Your task to perform on an android device: change keyboard looks Image 0: 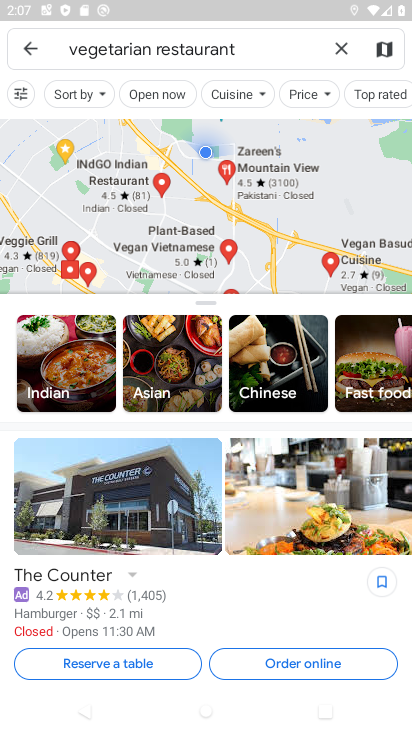
Step 0: press home button
Your task to perform on an android device: change keyboard looks Image 1: 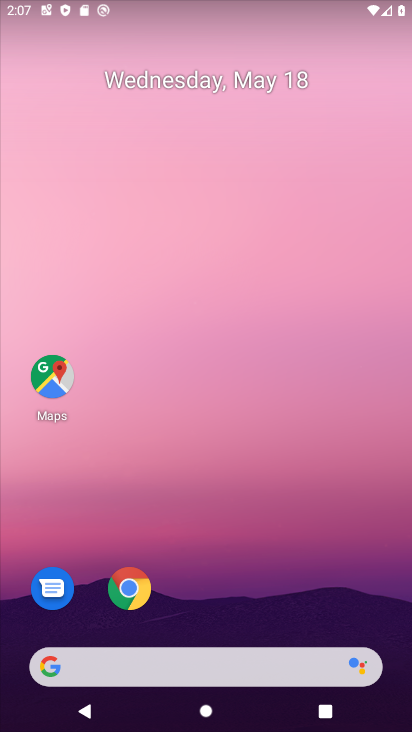
Step 1: drag from (368, 609) to (349, 166)
Your task to perform on an android device: change keyboard looks Image 2: 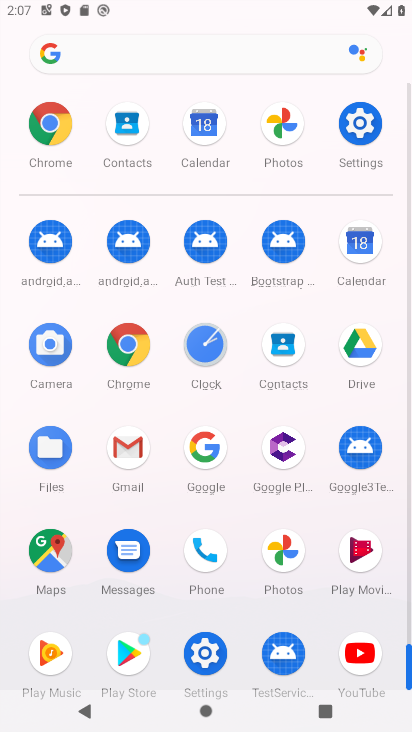
Step 2: click (352, 137)
Your task to perform on an android device: change keyboard looks Image 3: 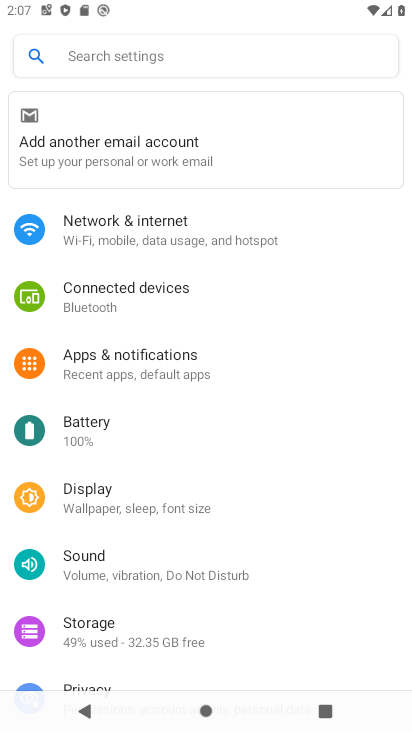
Step 3: drag from (319, 545) to (319, 357)
Your task to perform on an android device: change keyboard looks Image 4: 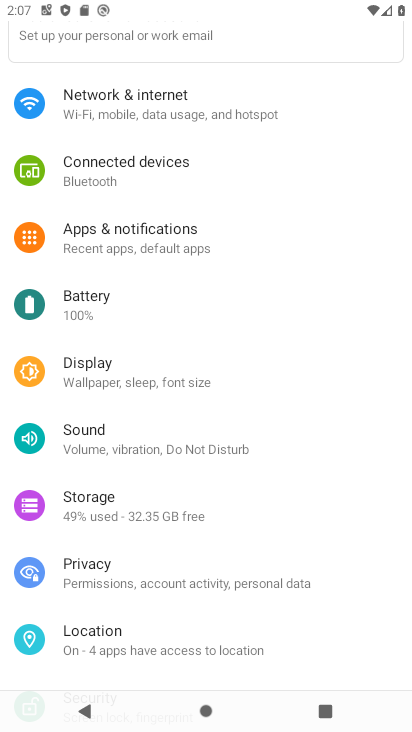
Step 4: drag from (324, 549) to (312, 387)
Your task to perform on an android device: change keyboard looks Image 5: 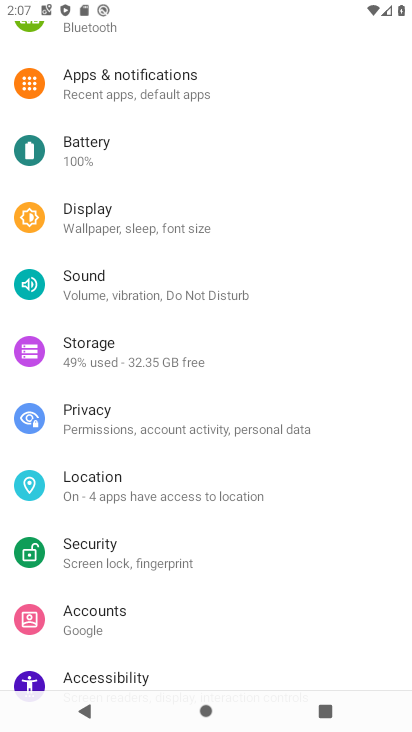
Step 5: drag from (327, 550) to (342, 473)
Your task to perform on an android device: change keyboard looks Image 6: 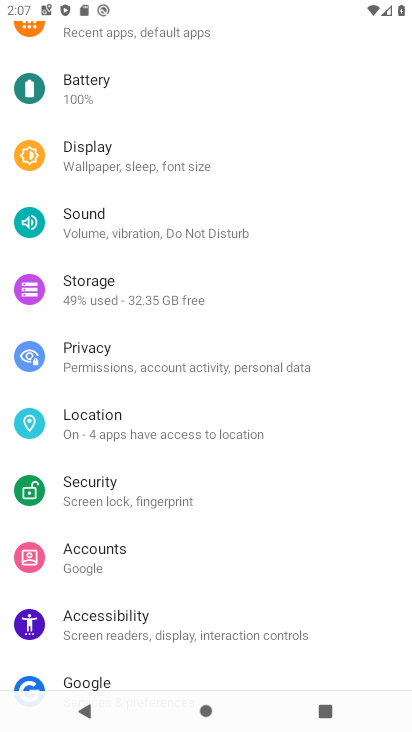
Step 6: drag from (345, 570) to (355, 426)
Your task to perform on an android device: change keyboard looks Image 7: 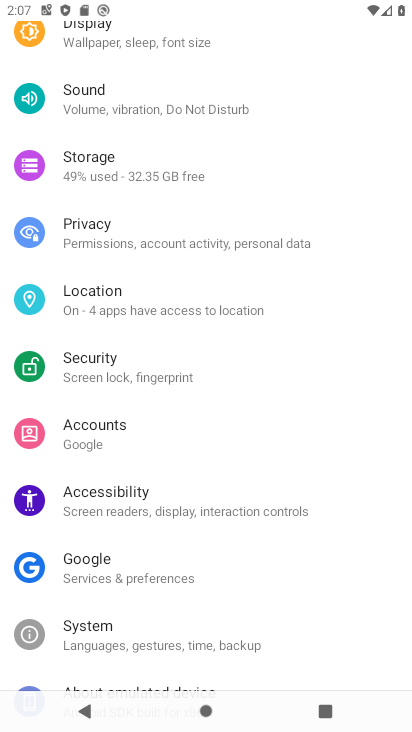
Step 7: drag from (323, 598) to (339, 509)
Your task to perform on an android device: change keyboard looks Image 8: 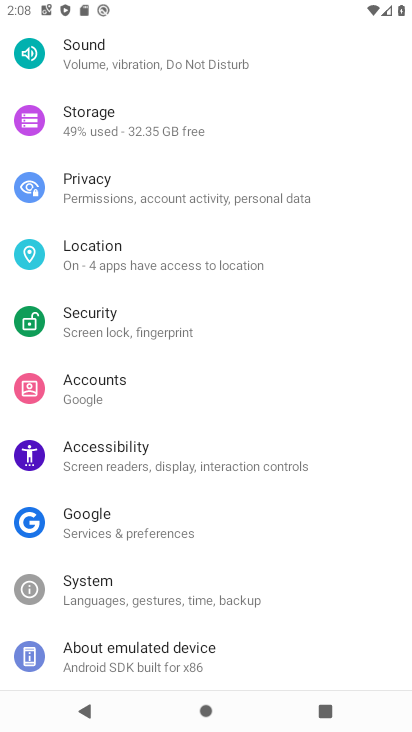
Step 8: drag from (332, 386) to (333, 520)
Your task to perform on an android device: change keyboard looks Image 9: 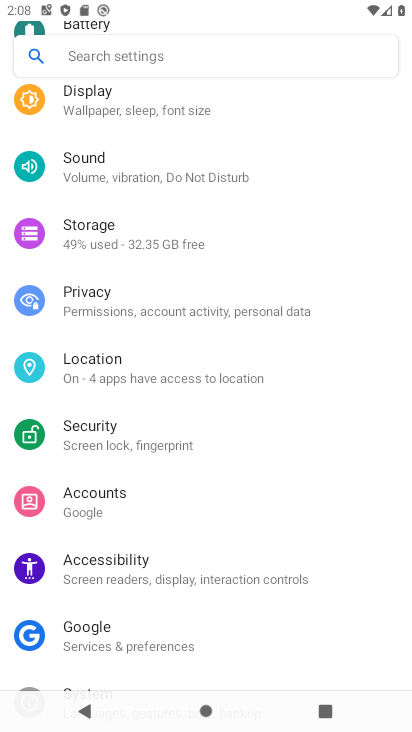
Step 9: drag from (328, 381) to (325, 501)
Your task to perform on an android device: change keyboard looks Image 10: 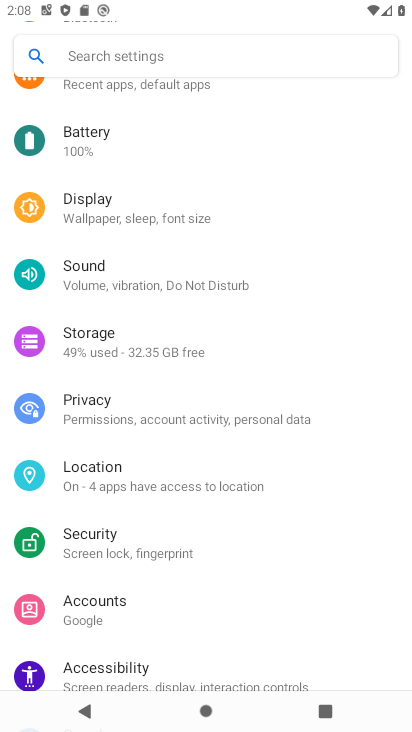
Step 10: drag from (307, 343) to (311, 472)
Your task to perform on an android device: change keyboard looks Image 11: 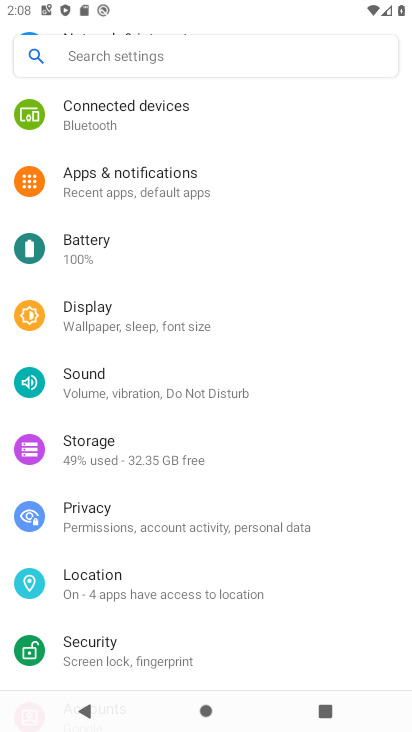
Step 11: drag from (315, 343) to (330, 481)
Your task to perform on an android device: change keyboard looks Image 12: 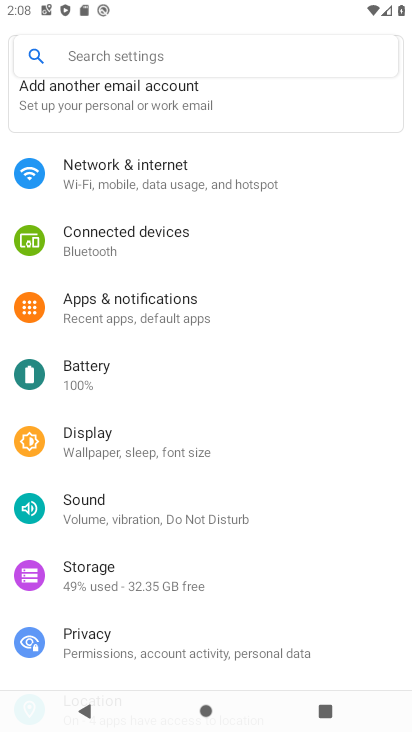
Step 12: drag from (320, 344) to (322, 489)
Your task to perform on an android device: change keyboard looks Image 13: 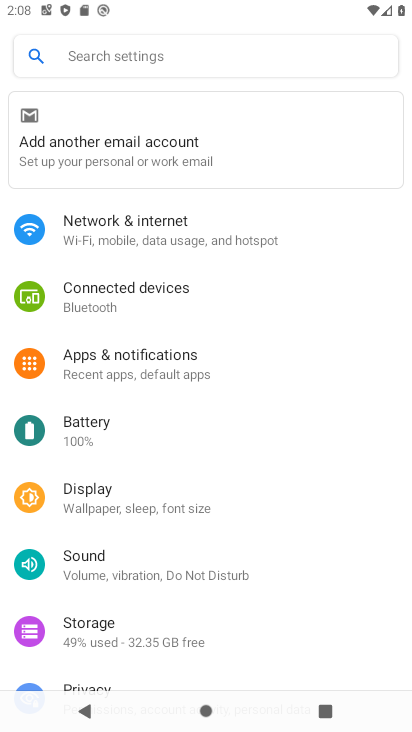
Step 13: drag from (325, 579) to (326, 424)
Your task to perform on an android device: change keyboard looks Image 14: 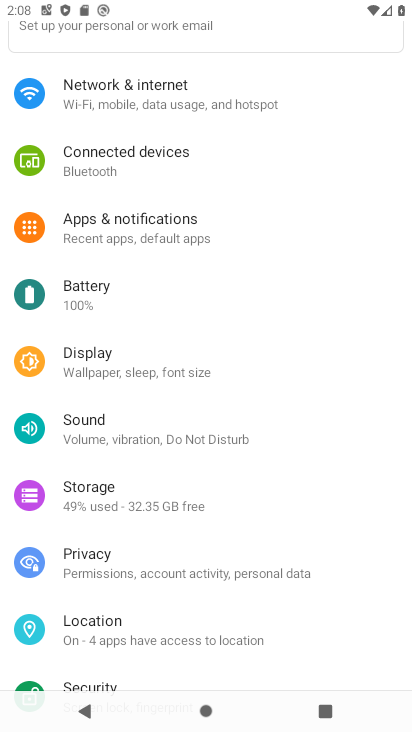
Step 14: drag from (315, 546) to (322, 447)
Your task to perform on an android device: change keyboard looks Image 15: 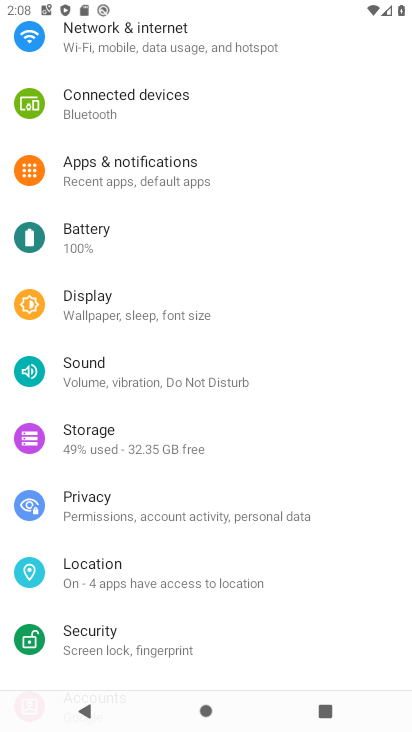
Step 15: drag from (335, 604) to (326, 435)
Your task to perform on an android device: change keyboard looks Image 16: 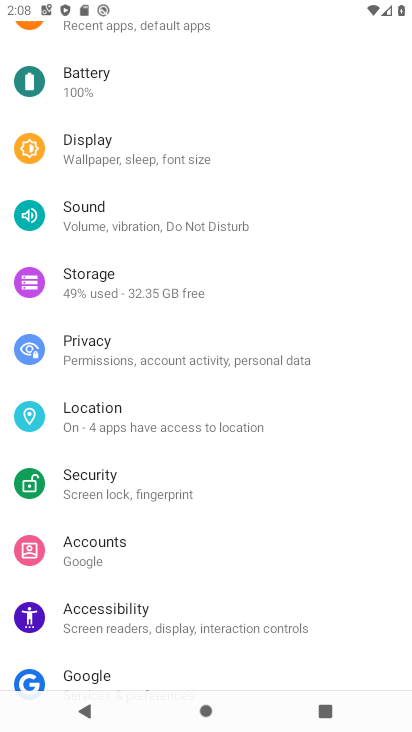
Step 16: drag from (340, 576) to (332, 431)
Your task to perform on an android device: change keyboard looks Image 17: 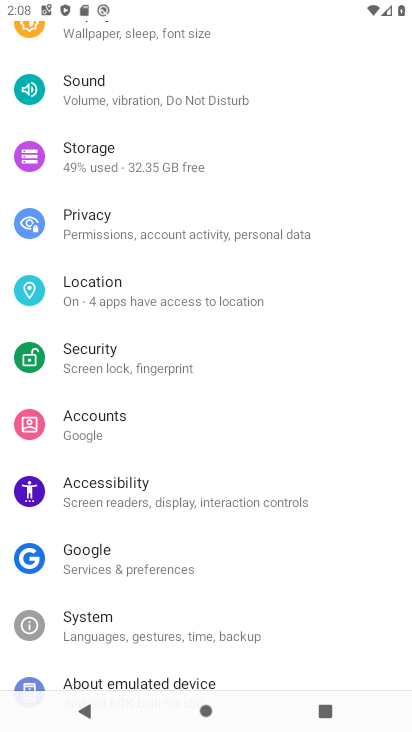
Step 17: drag from (320, 557) to (325, 419)
Your task to perform on an android device: change keyboard looks Image 18: 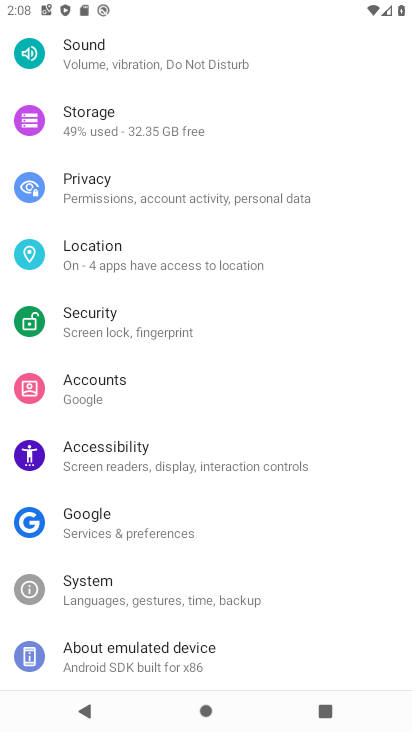
Step 18: click (197, 598)
Your task to perform on an android device: change keyboard looks Image 19: 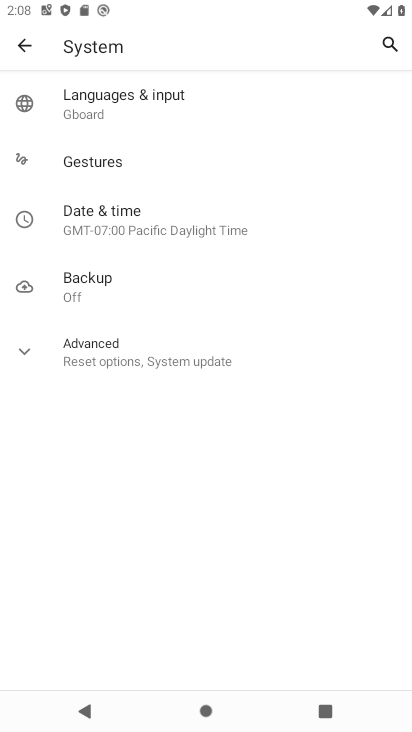
Step 19: click (127, 115)
Your task to perform on an android device: change keyboard looks Image 20: 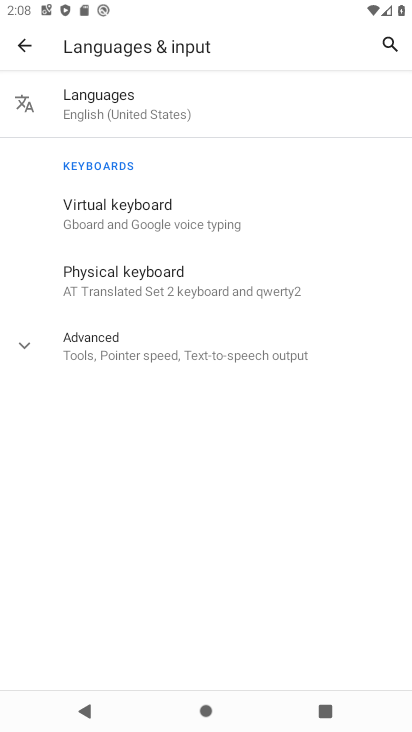
Step 20: click (131, 210)
Your task to perform on an android device: change keyboard looks Image 21: 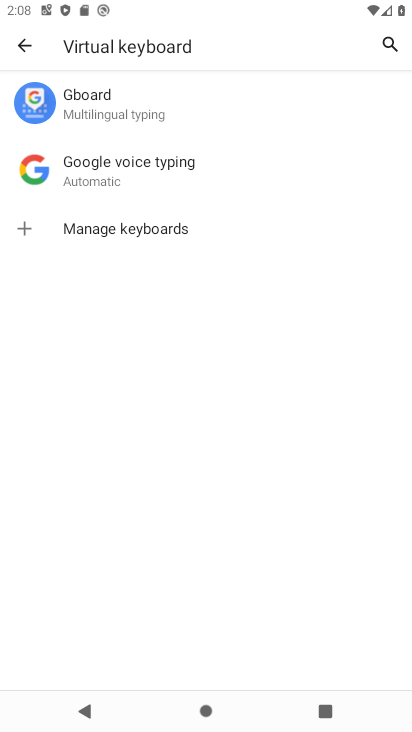
Step 21: click (130, 95)
Your task to perform on an android device: change keyboard looks Image 22: 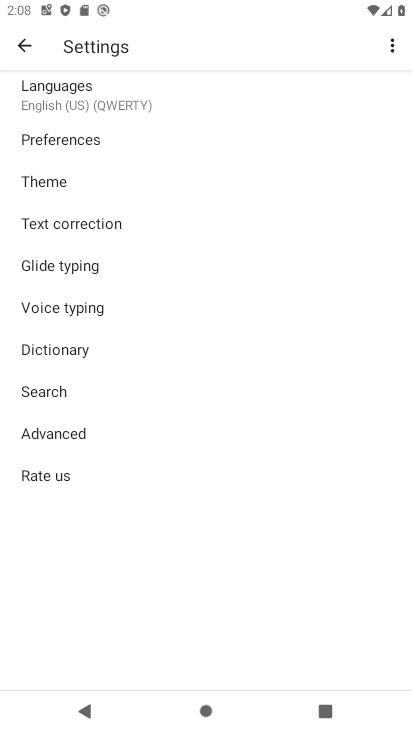
Step 22: click (49, 181)
Your task to perform on an android device: change keyboard looks Image 23: 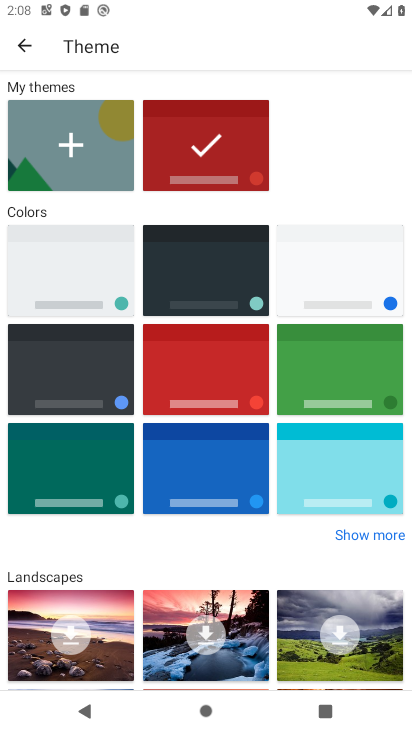
Step 23: click (187, 358)
Your task to perform on an android device: change keyboard looks Image 24: 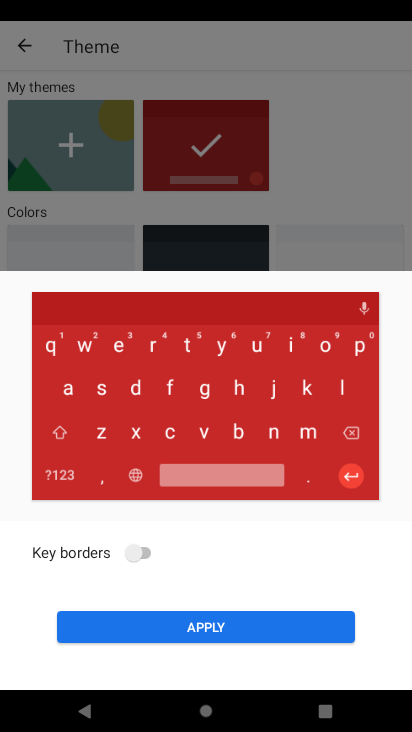
Step 24: click (233, 628)
Your task to perform on an android device: change keyboard looks Image 25: 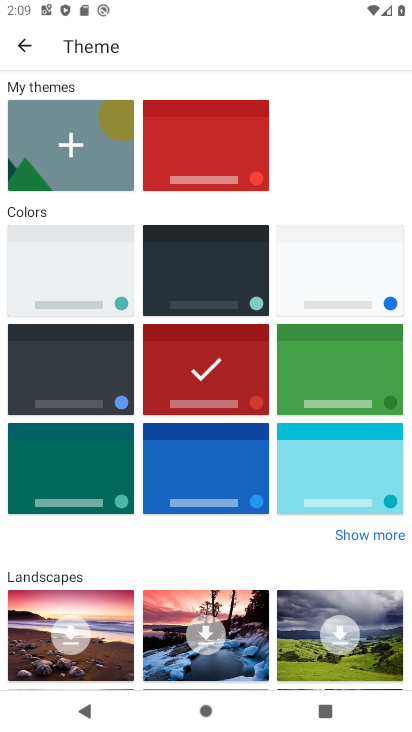
Step 25: task complete